Your task to perform on an android device: check google app version Image 0: 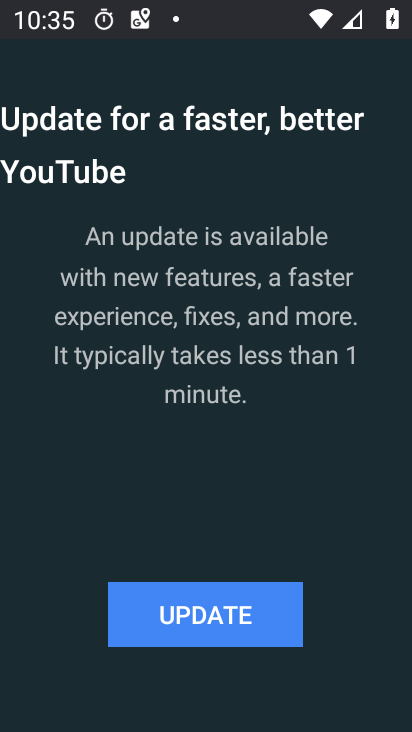
Step 0: press home button
Your task to perform on an android device: check google app version Image 1: 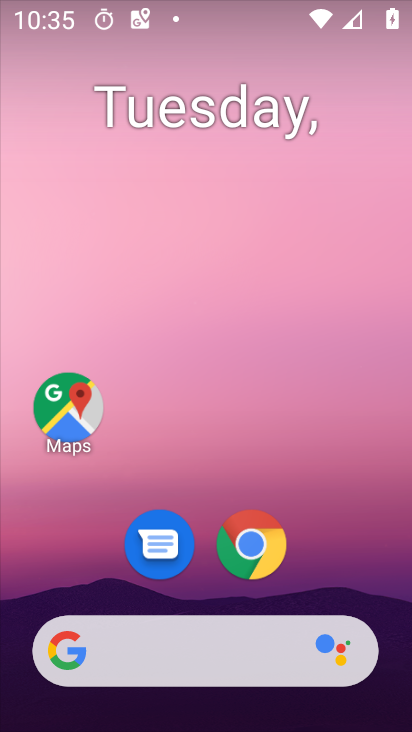
Step 1: drag from (370, 567) to (292, 51)
Your task to perform on an android device: check google app version Image 2: 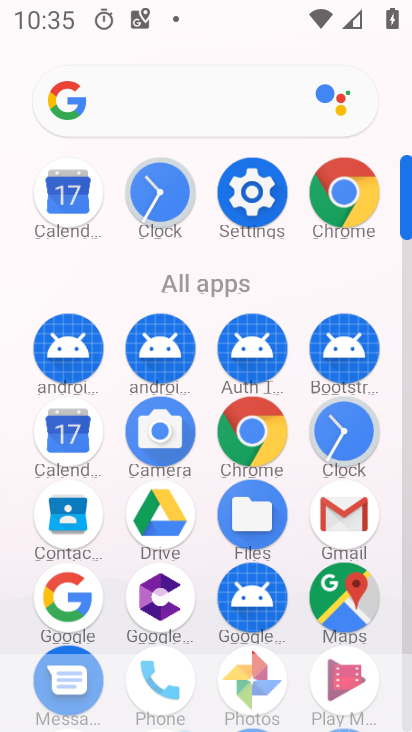
Step 2: click (356, 198)
Your task to perform on an android device: check google app version Image 3: 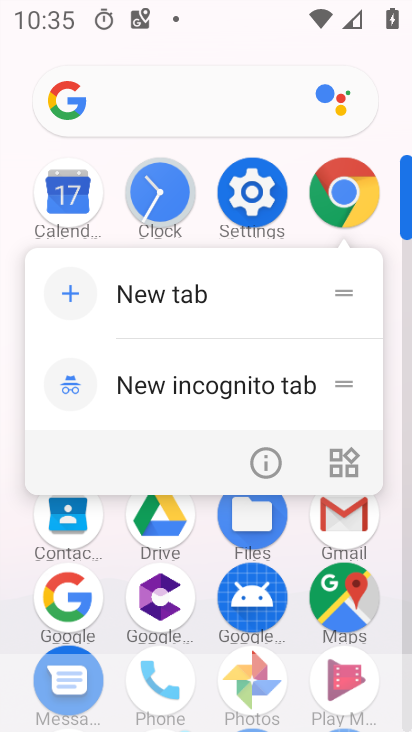
Step 3: click (266, 461)
Your task to perform on an android device: check google app version Image 4: 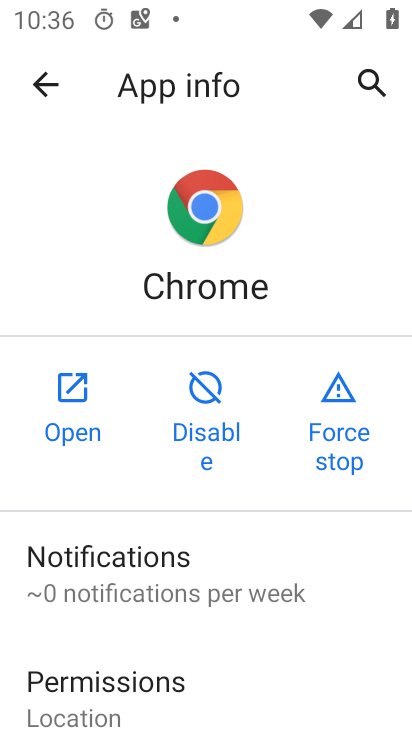
Step 4: drag from (299, 700) to (316, 106)
Your task to perform on an android device: check google app version Image 5: 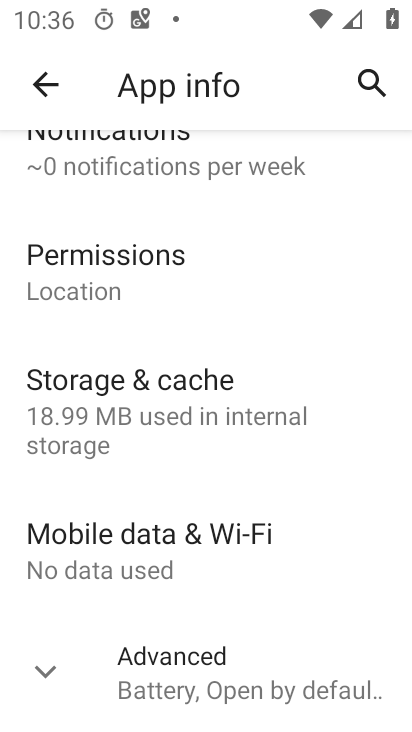
Step 5: drag from (302, 608) to (290, 179)
Your task to perform on an android device: check google app version Image 6: 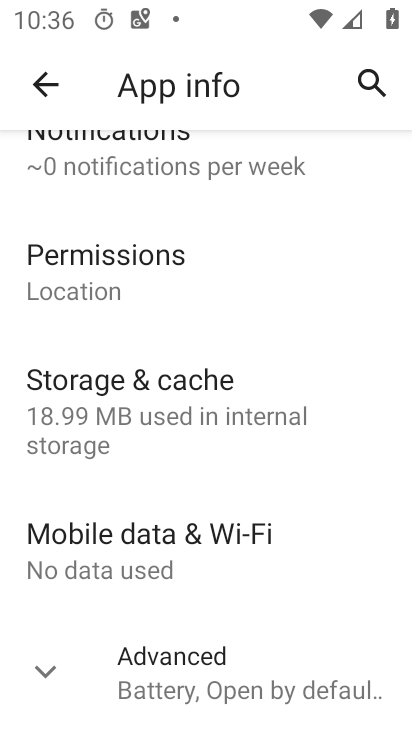
Step 6: drag from (266, 614) to (263, 320)
Your task to perform on an android device: check google app version Image 7: 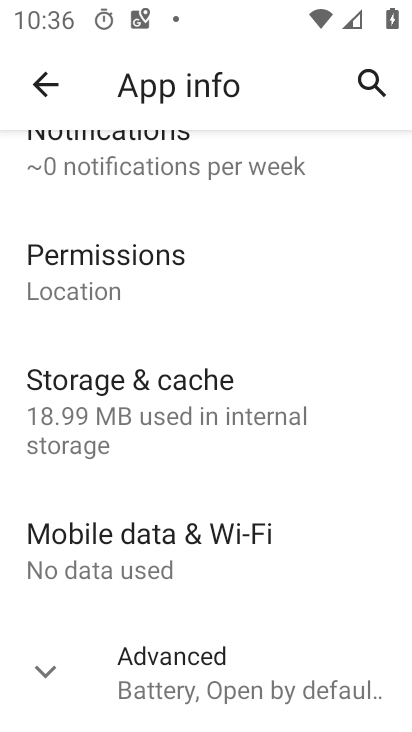
Step 7: click (174, 672)
Your task to perform on an android device: check google app version Image 8: 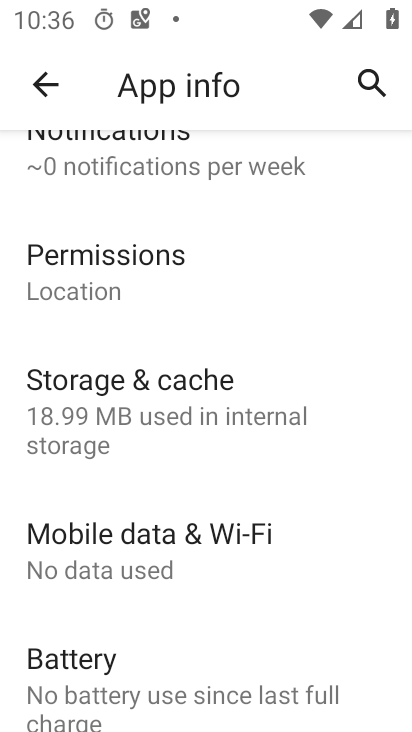
Step 8: task complete